Your task to perform on an android device: change timer sound Image 0: 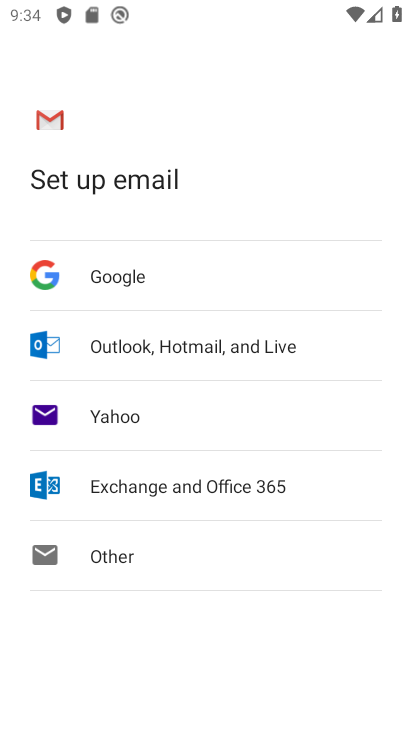
Step 0: press home button
Your task to perform on an android device: change timer sound Image 1: 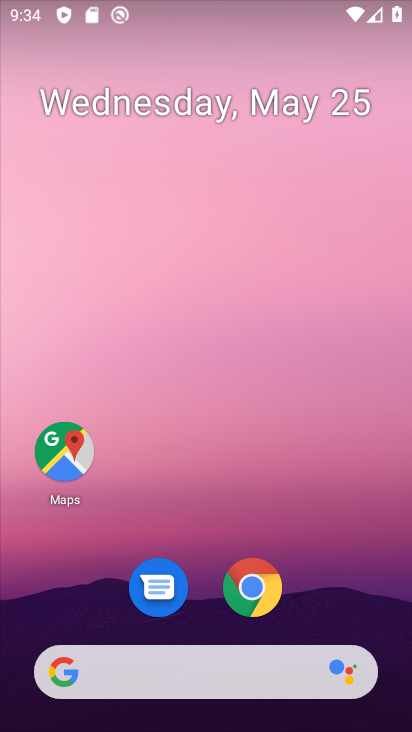
Step 1: drag from (209, 572) to (247, 0)
Your task to perform on an android device: change timer sound Image 2: 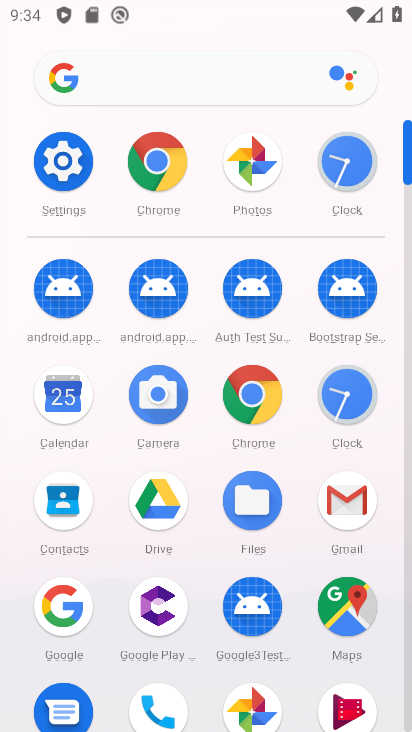
Step 2: click (57, 183)
Your task to perform on an android device: change timer sound Image 3: 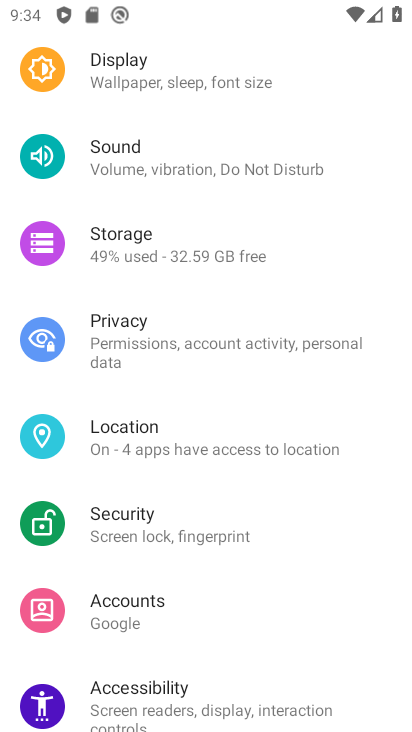
Step 3: drag from (202, 244) to (204, 485)
Your task to perform on an android device: change timer sound Image 4: 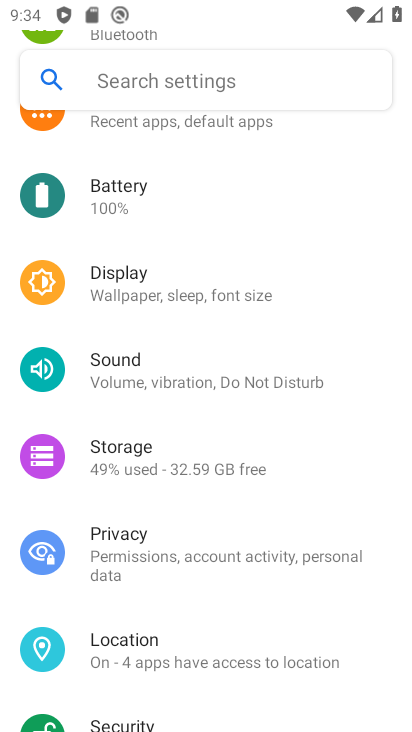
Step 4: drag from (201, 246) to (227, 583)
Your task to perform on an android device: change timer sound Image 5: 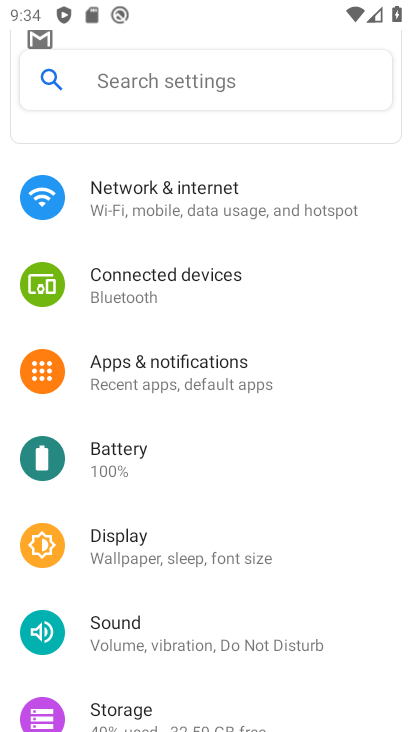
Step 5: press home button
Your task to perform on an android device: change timer sound Image 6: 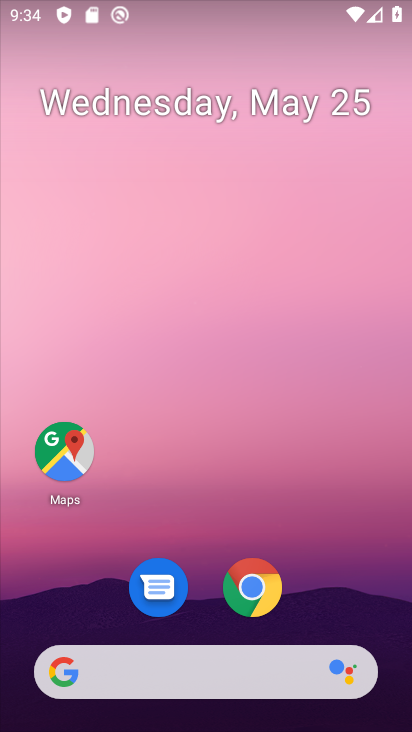
Step 6: drag from (214, 595) to (227, 217)
Your task to perform on an android device: change timer sound Image 7: 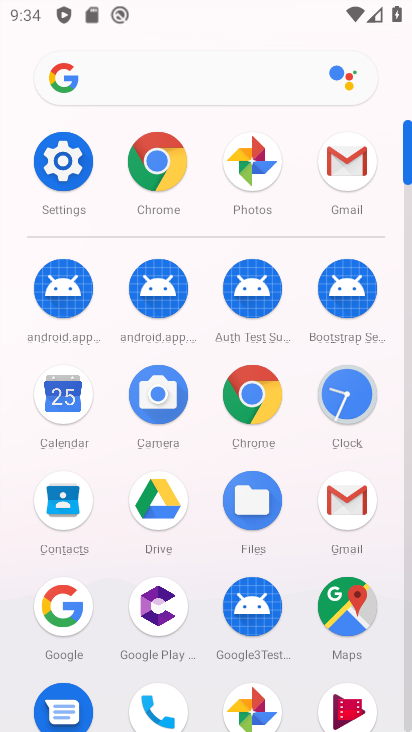
Step 7: click (361, 413)
Your task to perform on an android device: change timer sound Image 8: 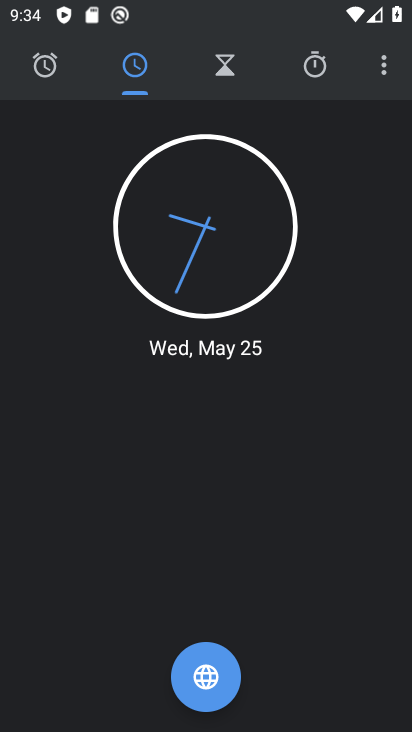
Step 8: click (382, 73)
Your task to perform on an android device: change timer sound Image 9: 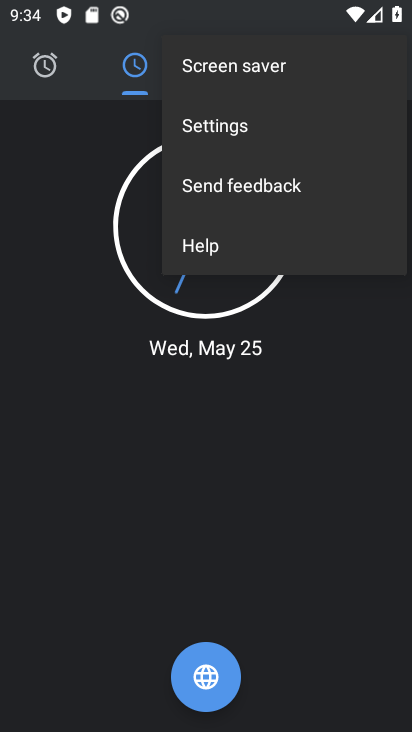
Step 9: click (225, 143)
Your task to perform on an android device: change timer sound Image 10: 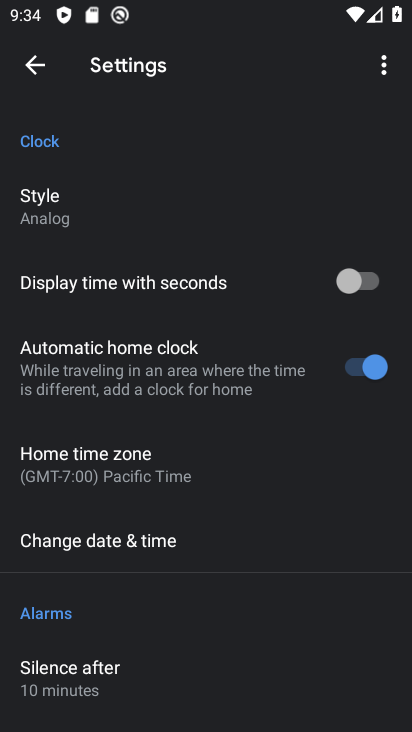
Step 10: drag from (88, 629) to (150, 350)
Your task to perform on an android device: change timer sound Image 11: 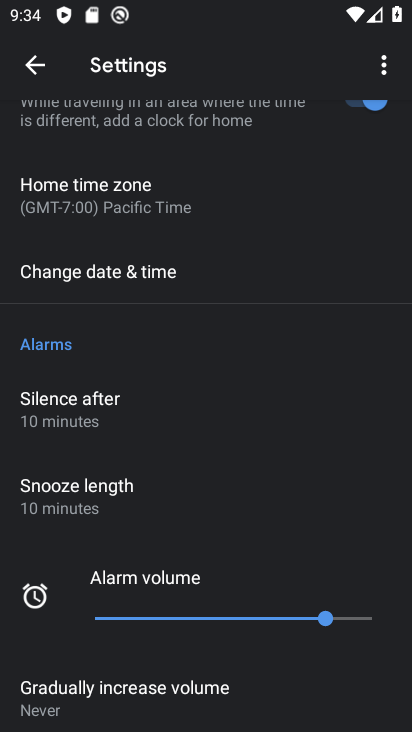
Step 11: drag from (100, 506) to (152, 273)
Your task to perform on an android device: change timer sound Image 12: 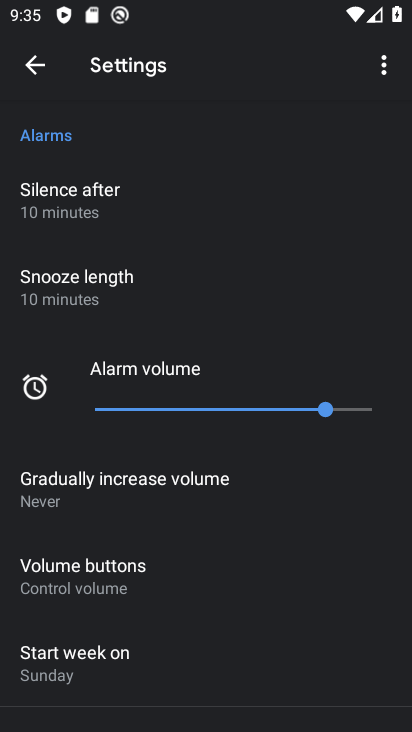
Step 12: drag from (161, 596) to (201, 354)
Your task to perform on an android device: change timer sound Image 13: 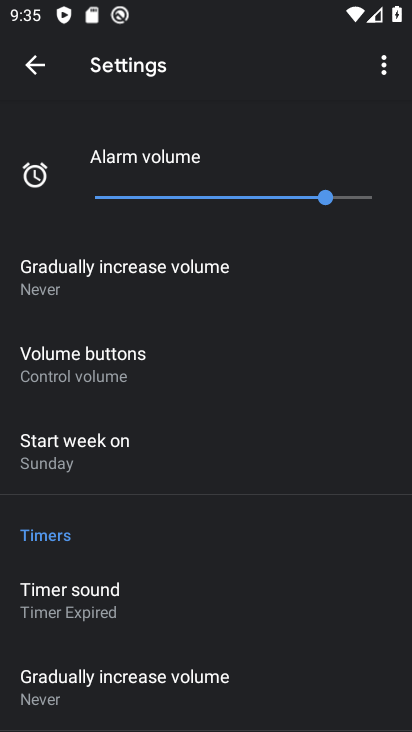
Step 13: click (131, 615)
Your task to perform on an android device: change timer sound Image 14: 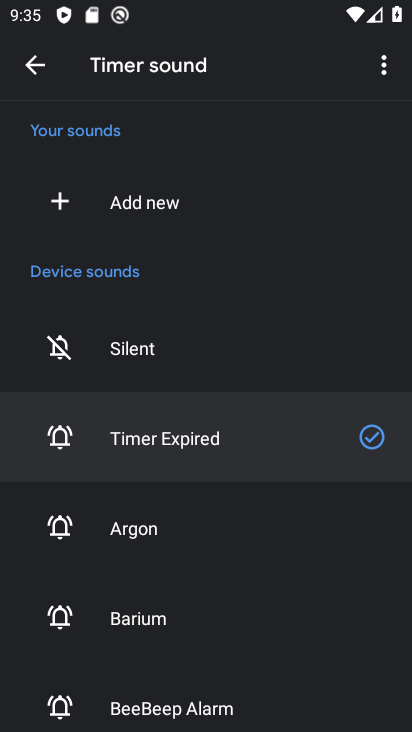
Step 14: click (109, 538)
Your task to perform on an android device: change timer sound Image 15: 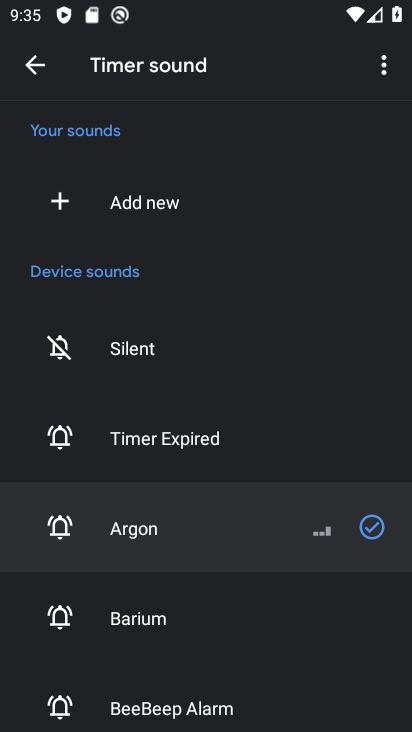
Step 15: task complete